Your task to perform on an android device: What's the weather? Image 0: 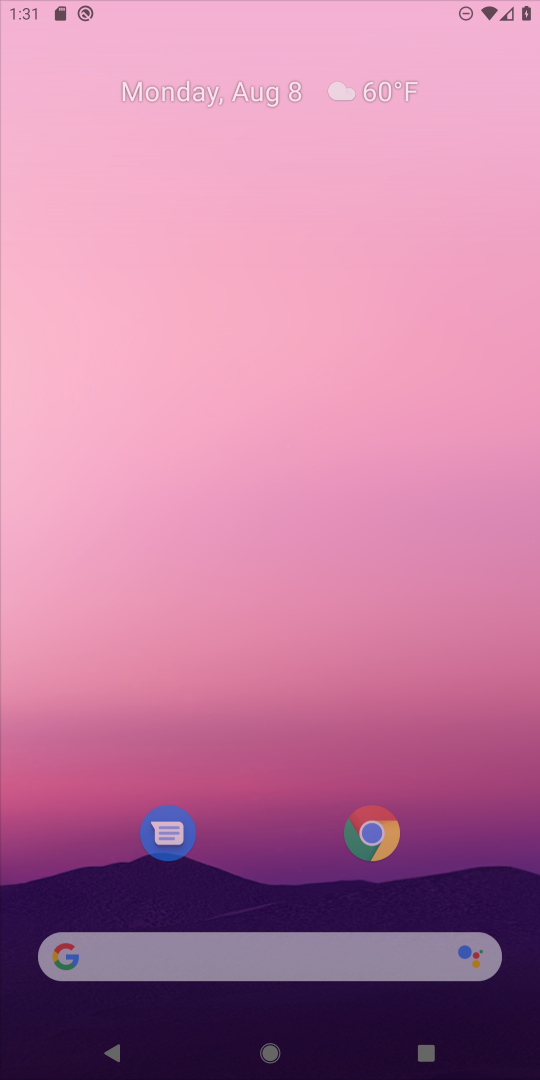
Step 0: press home button
Your task to perform on an android device: What's the weather? Image 1: 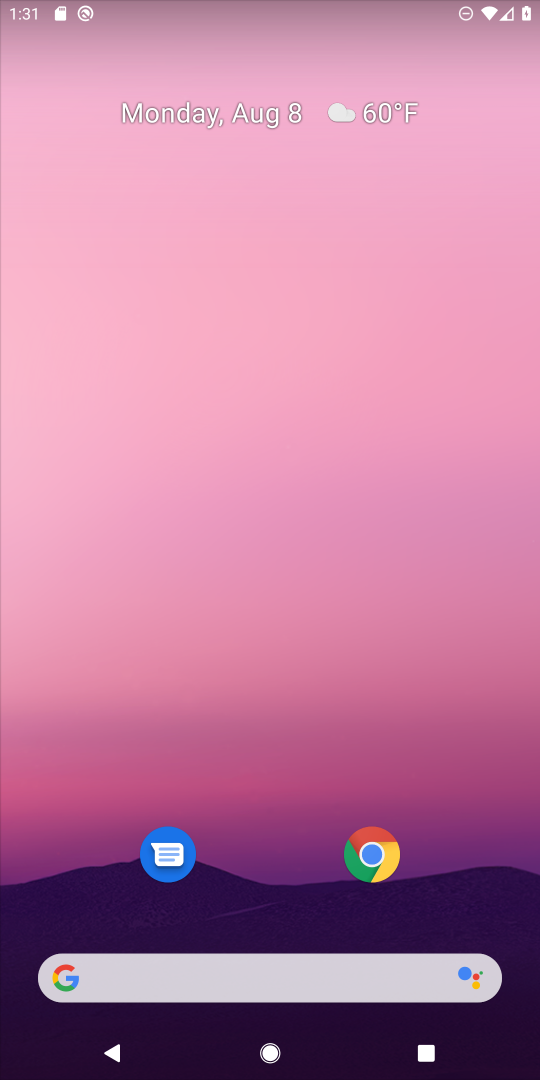
Step 1: click (65, 980)
Your task to perform on an android device: What's the weather? Image 2: 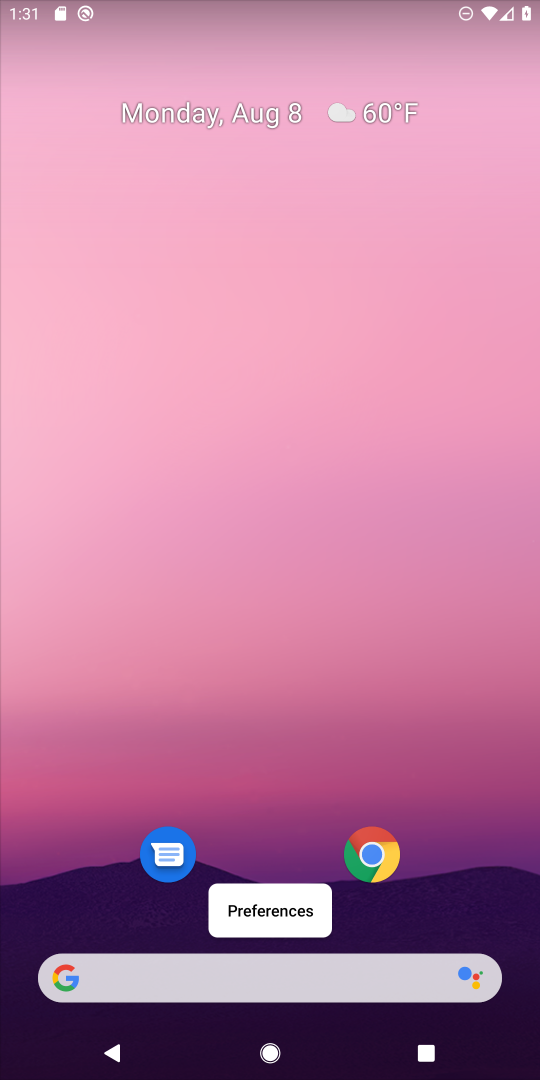
Step 2: click (55, 977)
Your task to perform on an android device: What's the weather? Image 3: 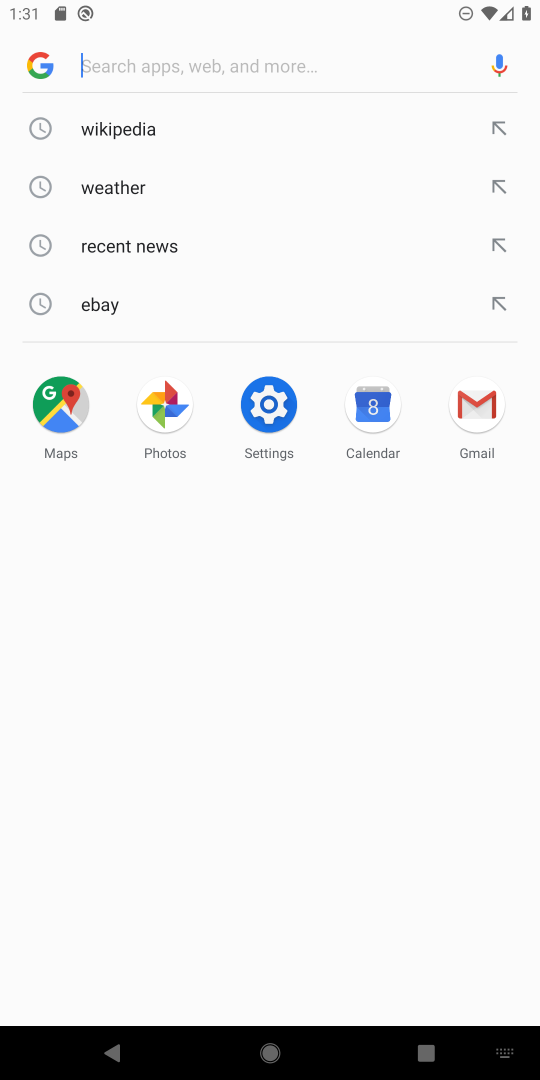
Step 3: click (112, 185)
Your task to perform on an android device: What's the weather? Image 4: 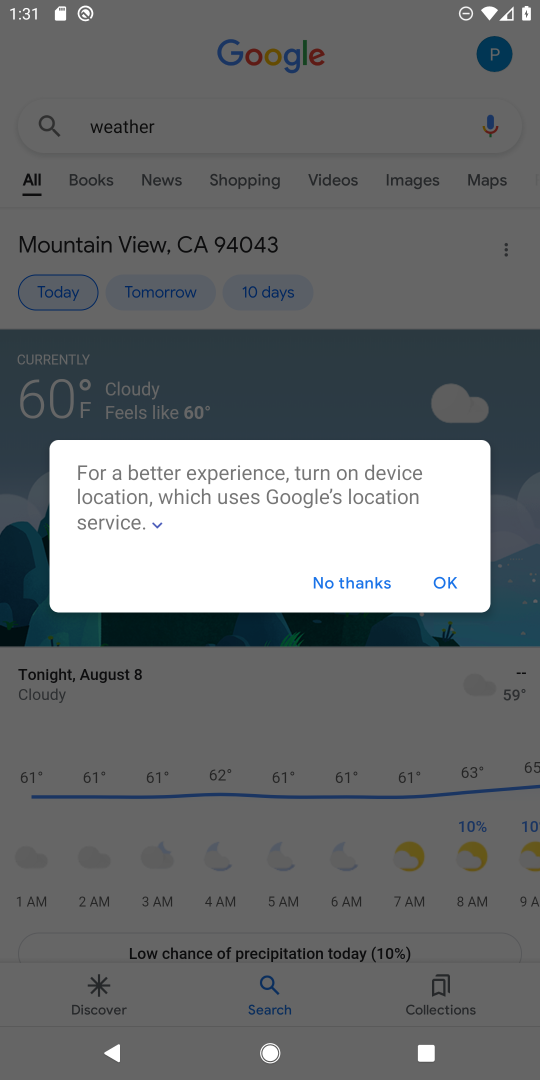
Step 4: click (356, 580)
Your task to perform on an android device: What's the weather? Image 5: 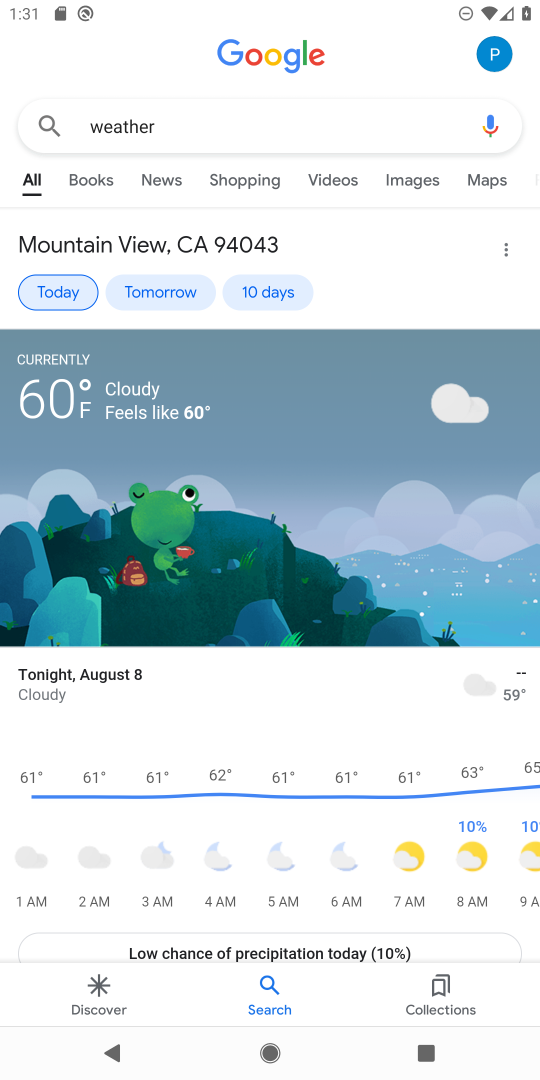
Step 5: task complete